Your task to perform on an android device: turn on bluetooth scan Image 0: 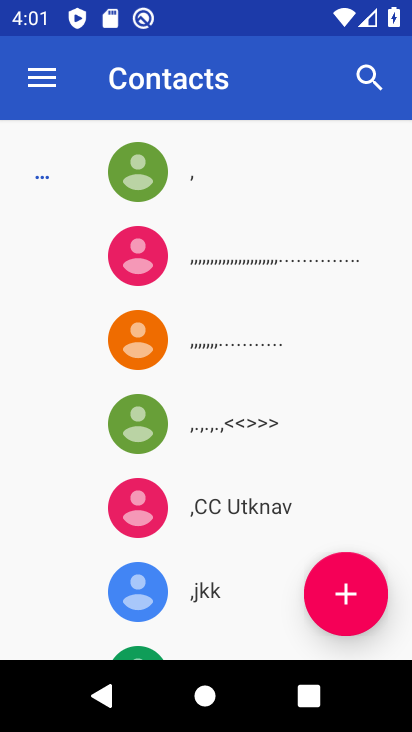
Step 0: press home button
Your task to perform on an android device: turn on bluetooth scan Image 1: 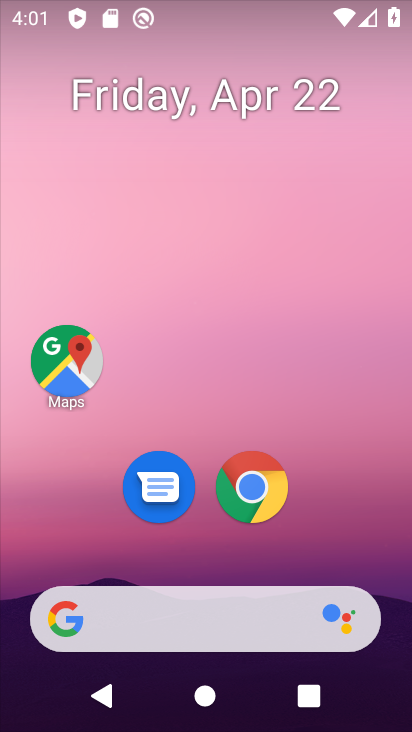
Step 1: drag from (306, 529) to (329, 67)
Your task to perform on an android device: turn on bluetooth scan Image 2: 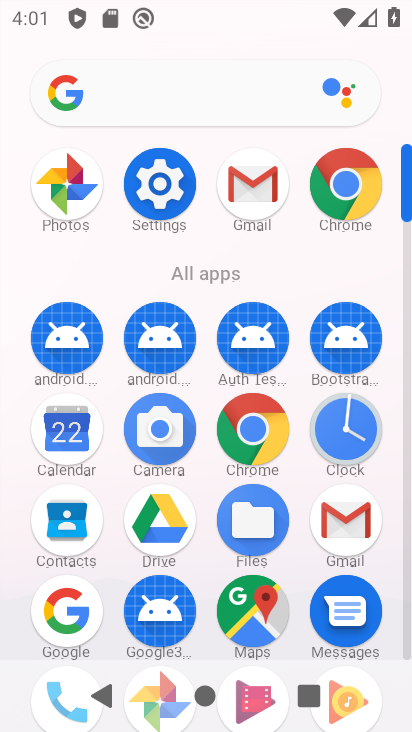
Step 2: click (184, 170)
Your task to perform on an android device: turn on bluetooth scan Image 3: 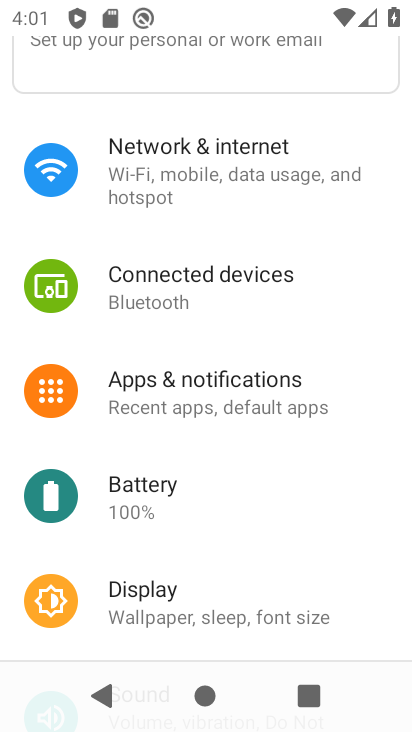
Step 3: drag from (249, 553) to (296, 209)
Your task to perform on an android device: turn on bluetooth scan Image 4: 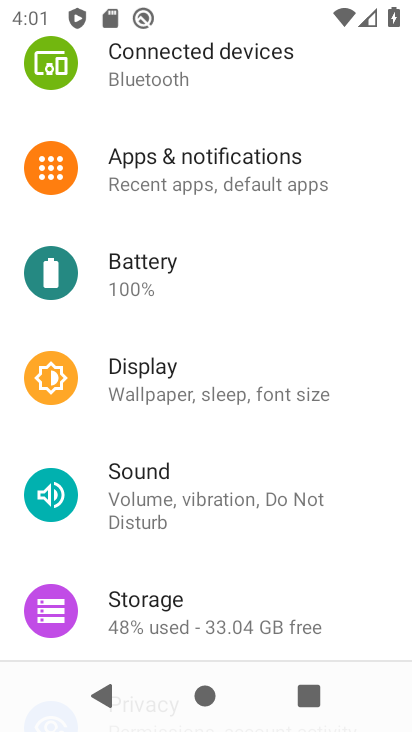
Step 4: drag from (246, 595) to (321, 142)
Your task to perform on an android device: turn on bluetooth scan Image 5: 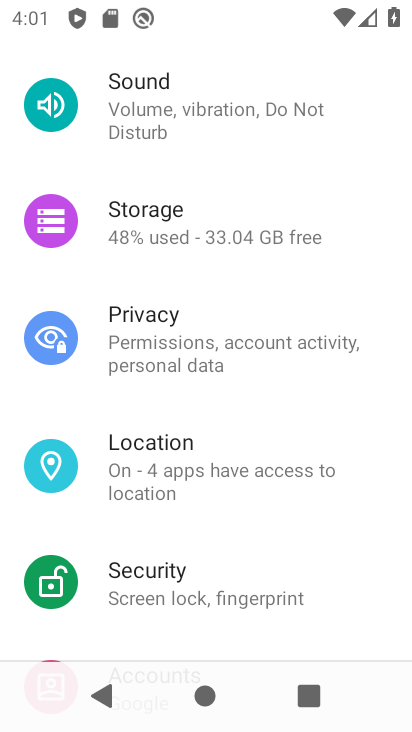
Step 5: drag from (230, 587) to (245, 451)
Your task to perform on an android device: turn on bluetooth scan Image 6: 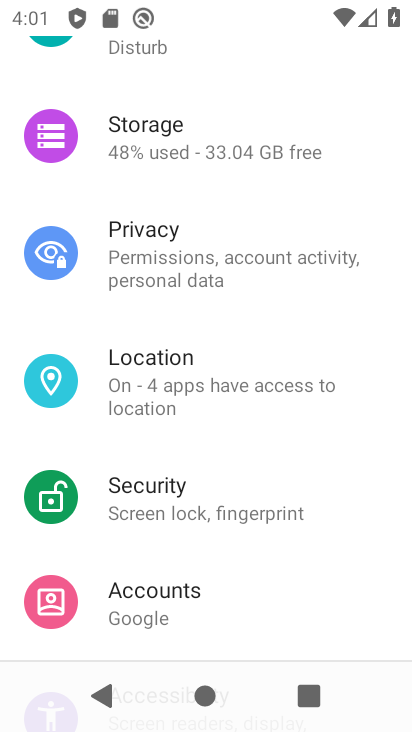
Step 6: click (212, 386)
Your task to perform on an android device: turn on bluetooth scan Image 7: 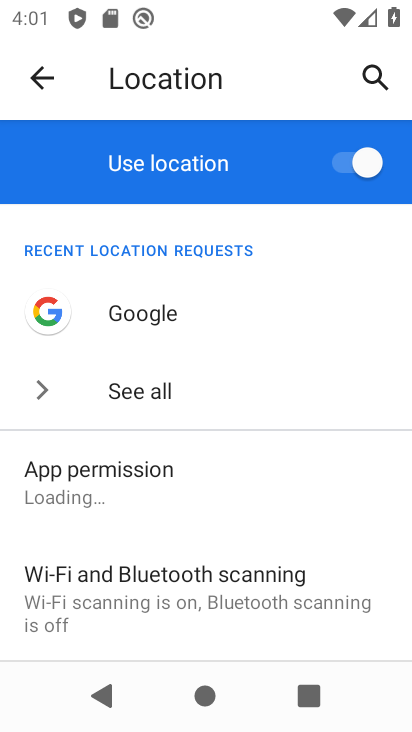
Step 7: click (251, 591)
Your task to perform on an android device: turn on bluetooth scan Image 8: 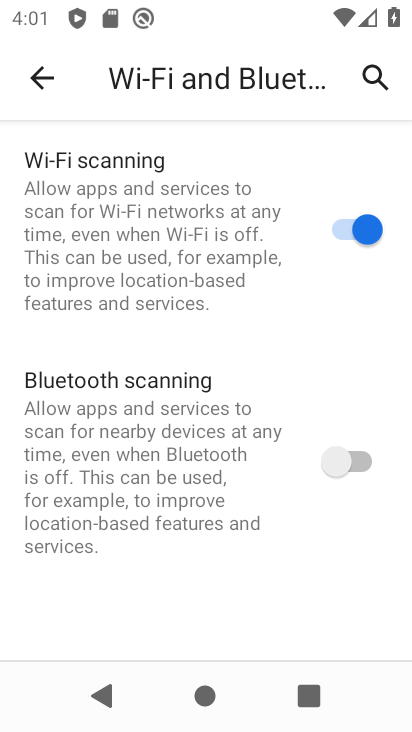
Step 8: click (334, 465)
Your task to perform on an android device: turn on bluetooth scan Image 9: 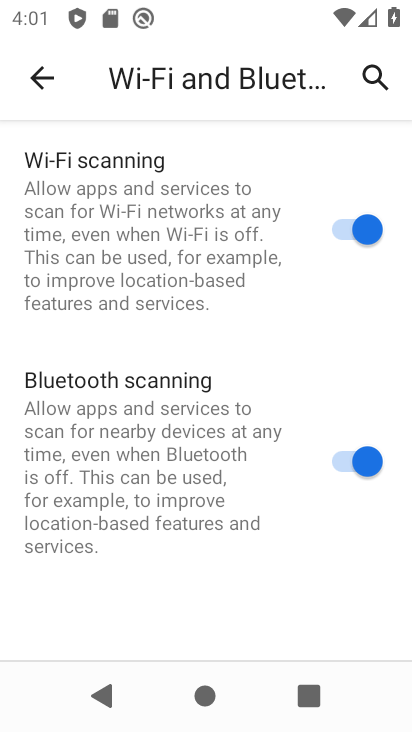
Step 9: task complete